Your task to perform on an android device: Show me productivity apps on the Play Store Image 0: 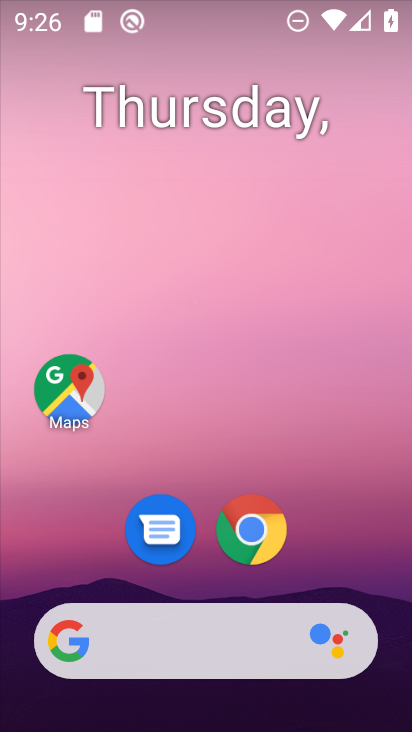
Step 0: drag from (221, 723) to (219, 107)
Your task to perform on an android device: Show me productivity apps on the Play Store Image 1: 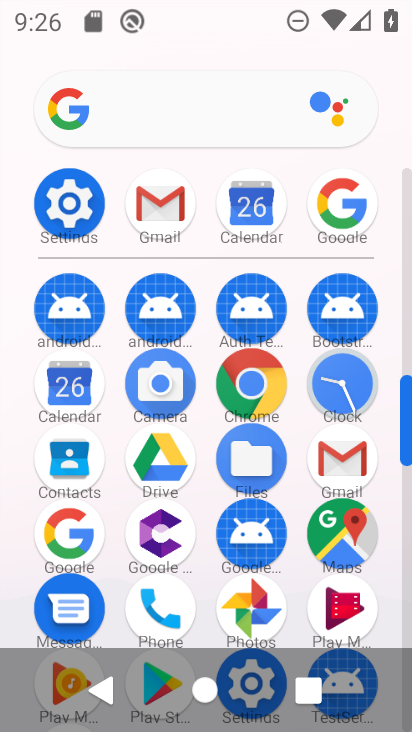
Step 1: drag from (296, 607) to (274, 183)
Your task to perform on an android device: Show me productivity apps on the Play Store Image 2: 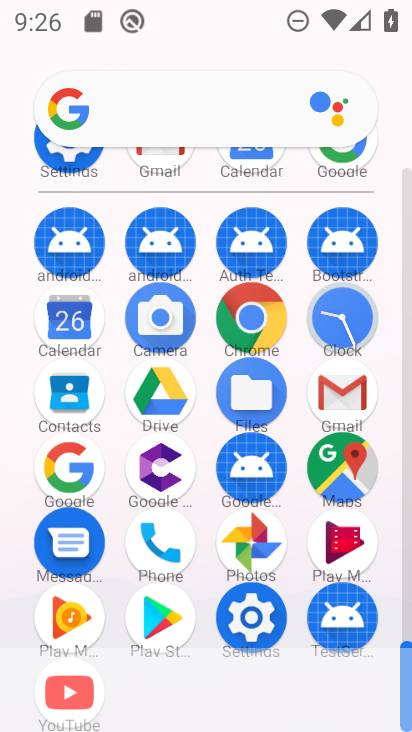
Step 2: click (164, 607)
Your task to perform on an android device: Show me productivity apps on the Play Store Image 3: 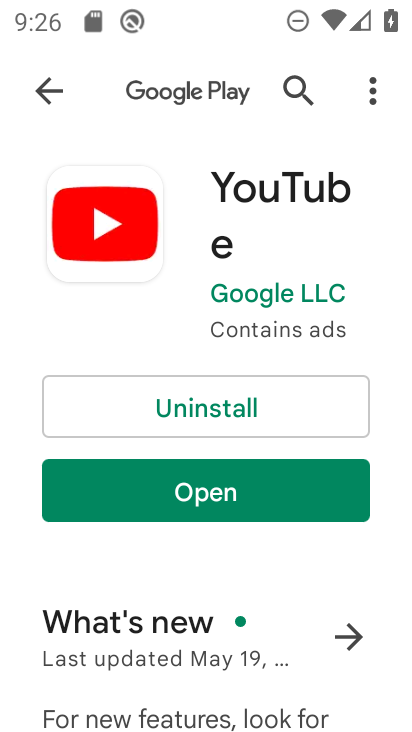
Step 3: click (44, 87)
Your task to perform on an android device: Show me productivity apps on the Play Store Image 4: 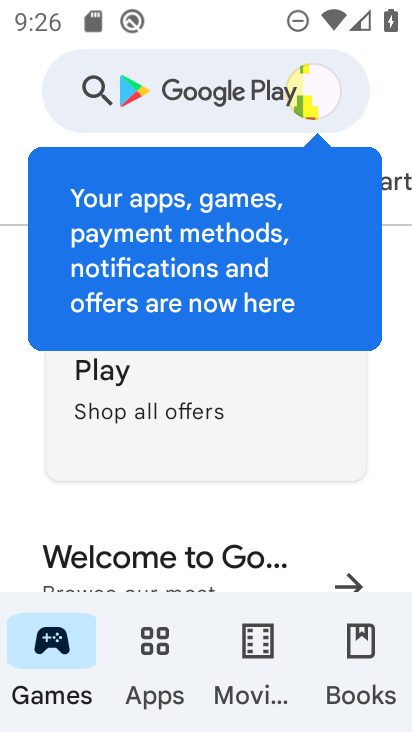
Step 4: click (144, 675)
Your task to perform on an android device: Show me productivity apps on the Play Store Image 5: 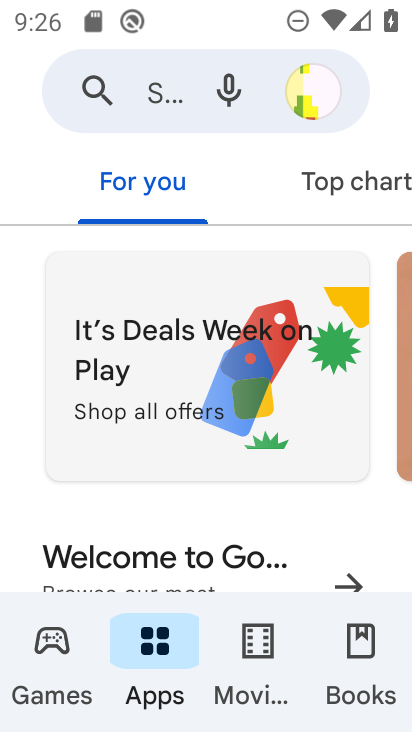
Step 5: drag from (359, 179) to (34, 165)
Your task to perform on an android device: Show me productivity apps on the Play Store Image 6: 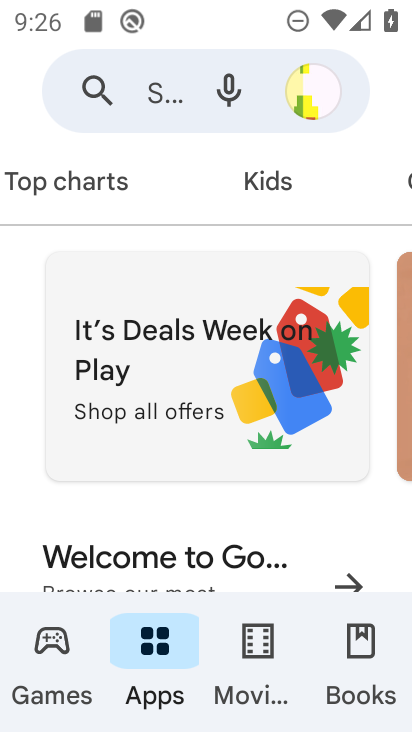
Step 6: drag from (391, 186) to (84, 132)
Your task to perform on an android device: Show me productivity apps on the Play Store Image 7: 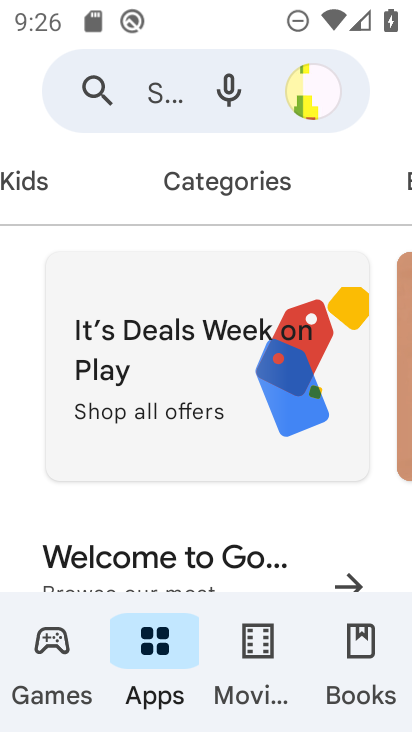
Step 7: click (227, 175)
Your task to perform on an android device: Show me productivity apps on the Play Store Image 8: 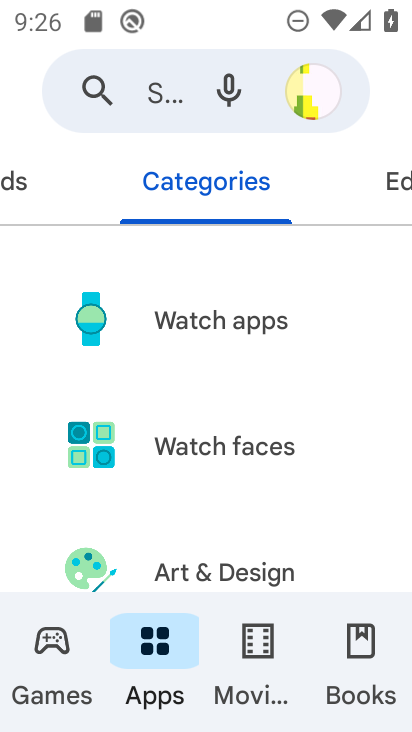
Step 8: drag from (324, 550) to (301, 128)
Your task to perform on an android device: Show me productivity apps on the Play Store Image 9: 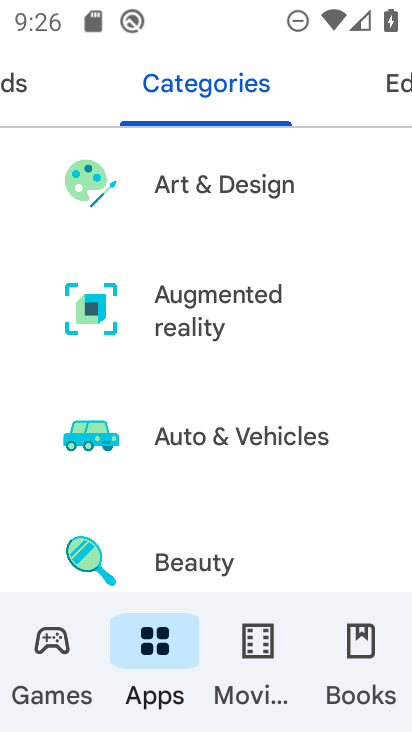
Step 9: drag from (344, 577) to (323, 147)
Your task to perform on an android device: Show me productivity apps on the Play Store Image 10: 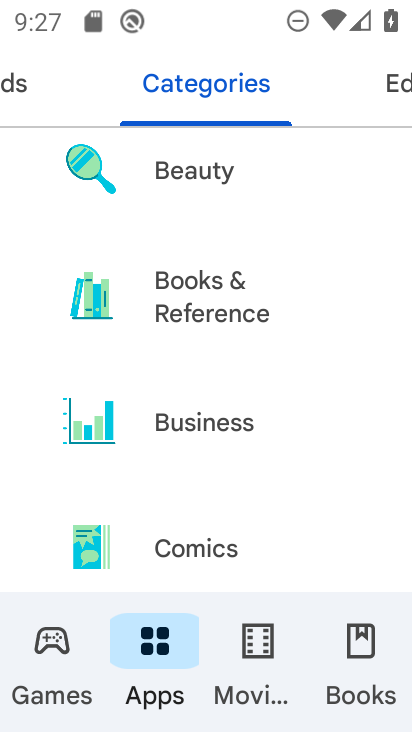
Step 10: drag from (280, 569) to (285, 130)
Your task to perform on an android device: Show me productivity apps on the Play Store Image 11: 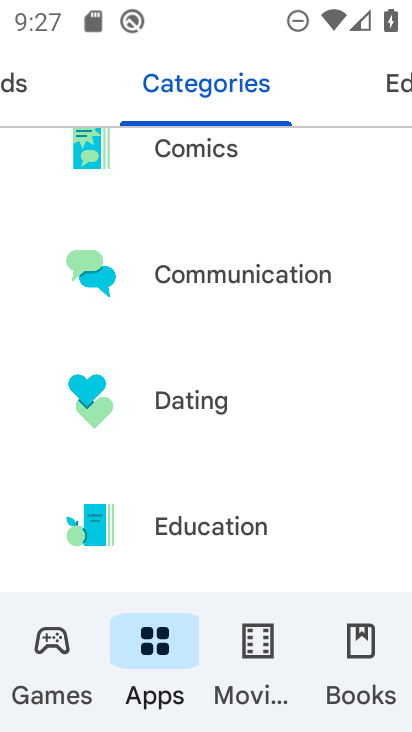
Step 11: drag from (298, 570) to (300, 67)
Your task to perform on an android device: Show me productivity apps on the Play Store Image 12: 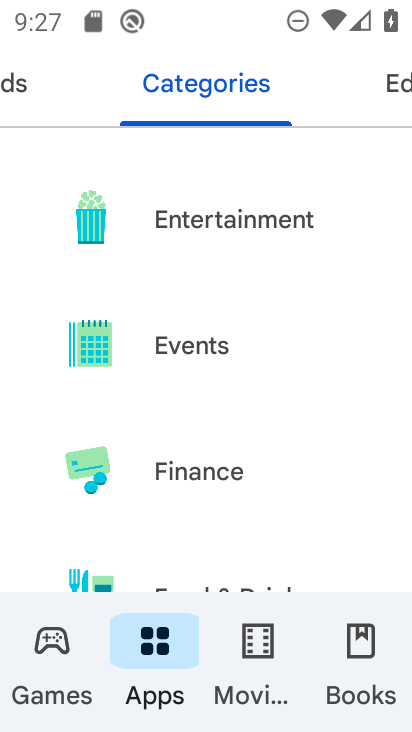
Step 12: drag from (312, 580) to (315, 85)
Your task to perform on an android device: Show me productivity apps on the Play Store Image 13: 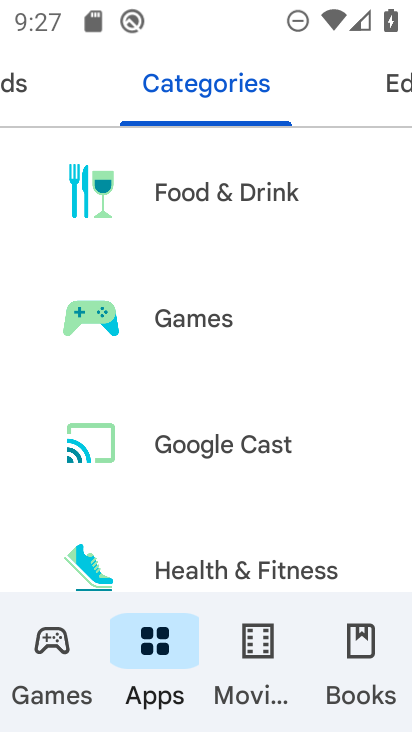
Step 13: drag from (351, 574) to (355, 82)
Your task to perform on an android device: Show me productivity apps on the Play Store Image 14: 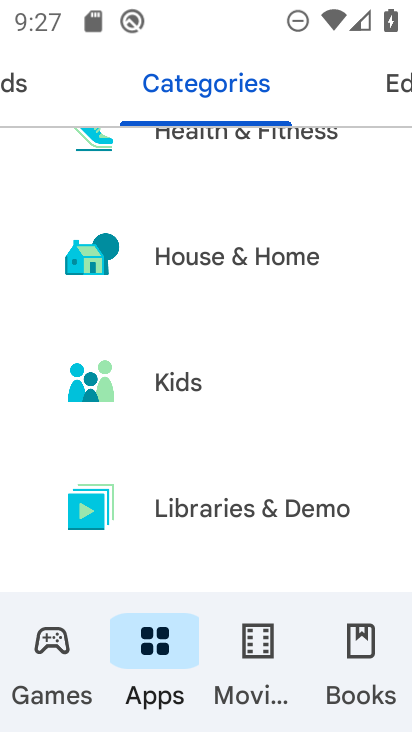
Step 14: drag from (364, 575) to (345, 100)
Your task to perform on an android device: Show me productivity apps on the Play Store Image 15: 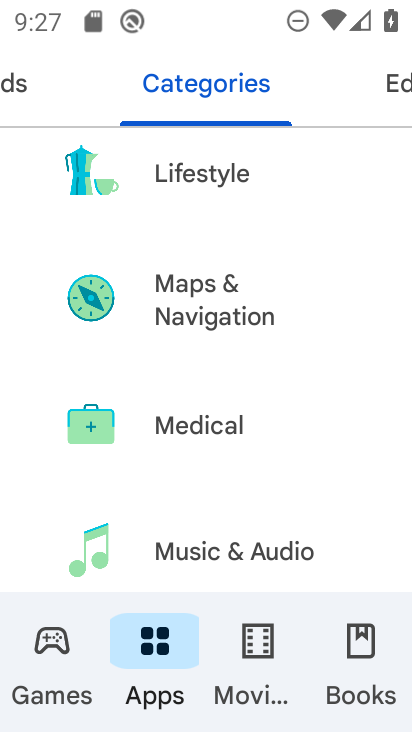
Step 15: drag from (344, 577) to (349, 98)
Your task to perform on an android device: Show me productivity apps on the Play Store Image 16: 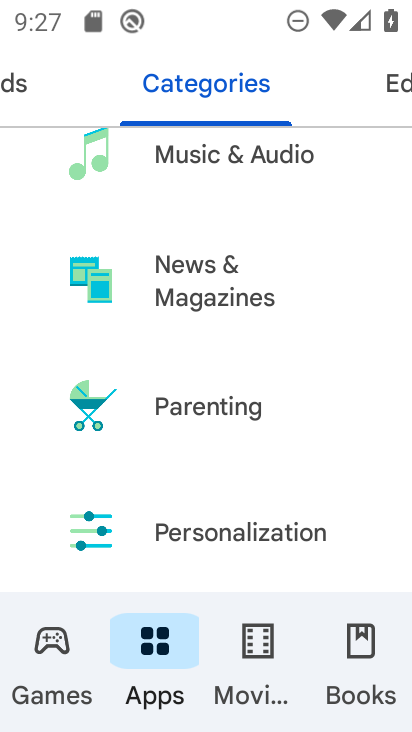
Step 16: drag from (358, 559) to (360, 142)
Your task to perform on an android device: Show me productivity apps on the Play Store Image 17: 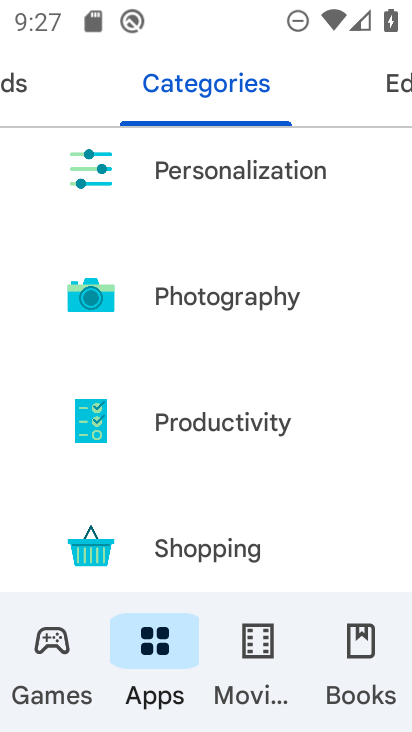
Step 17: click (206, 419)
Your task to perform on an android device: Show me productivity apps on the Play Store Image 18: 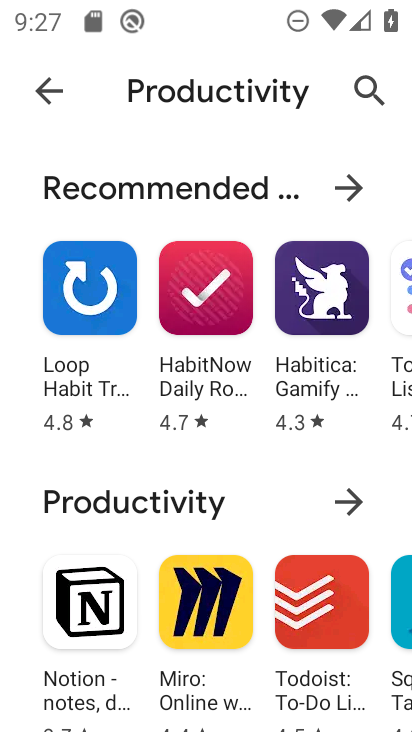
Step 18: task complete